Your task to perform on an android device: Open Yahoo.com Image 0: 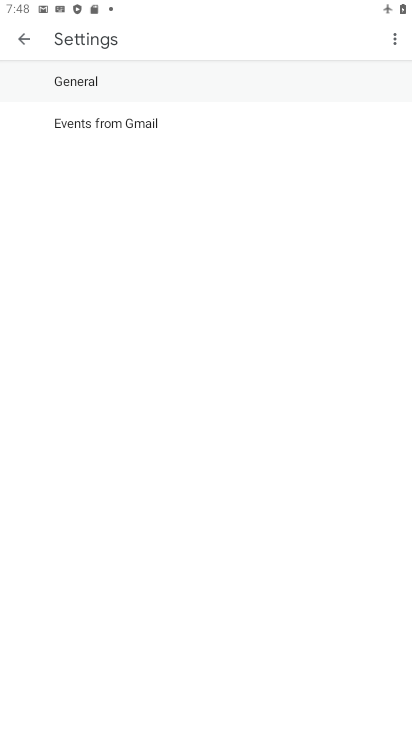
Step 0: press home button
Your task to perform on an android device: Open Yahoo.com Image 1: 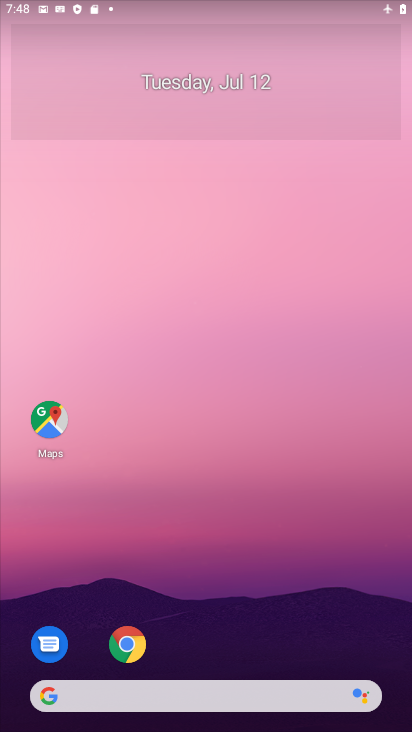
Step 1: click (114, 643)
Your task to perform on an android device: Open Yahoo.com Image 2: 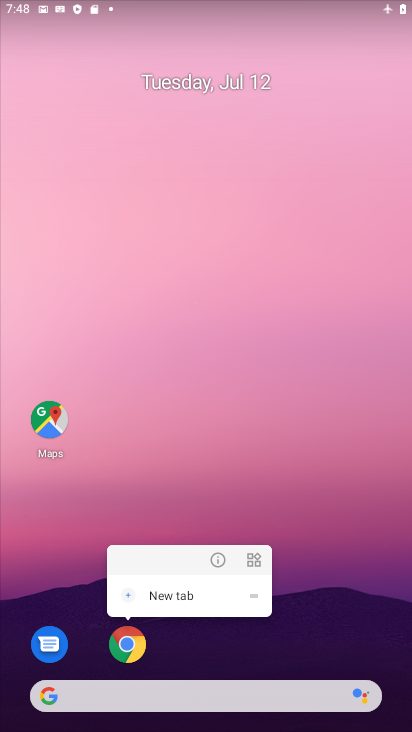
Step 2: click (118, 651)
Your task to perform on an android device: Open Yahoo.com Image 3: 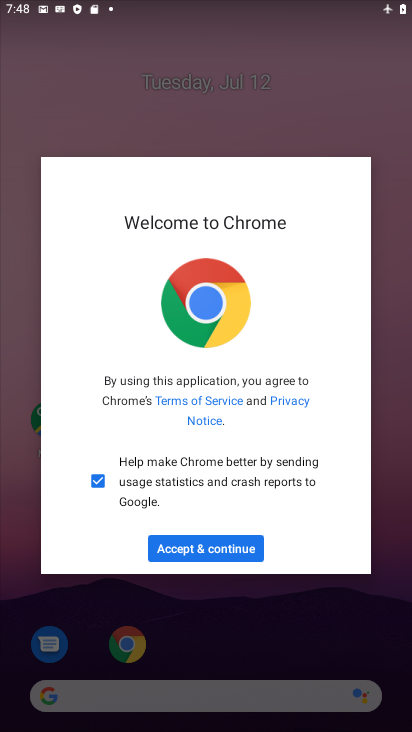
Step 3: click (236, 546)
Your task to perform on an android device: Open Yahoo.com Image 4: 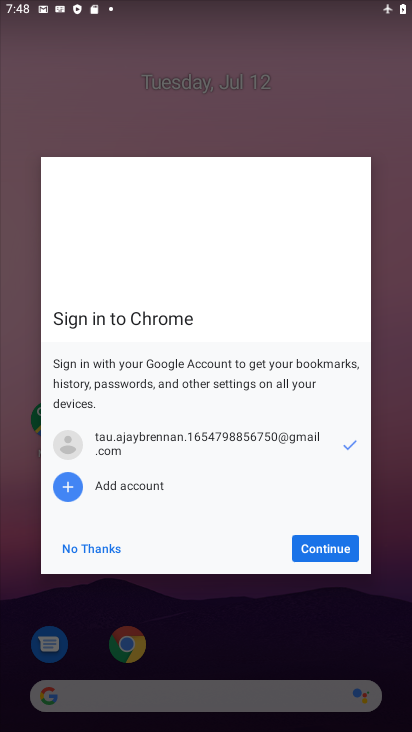
Step 4: click (314, 559)
Your task to perform on an android device: Open Yahoo.com Image 5: 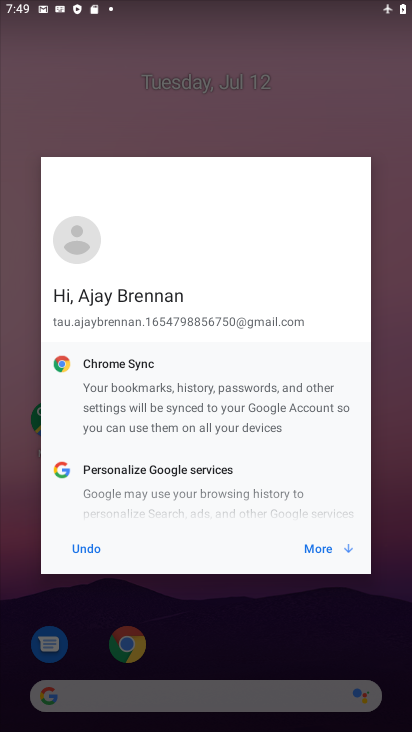
Step 5: click (315, 558)
Your task to perform on an android device: Open Yahoo.com Image 6: 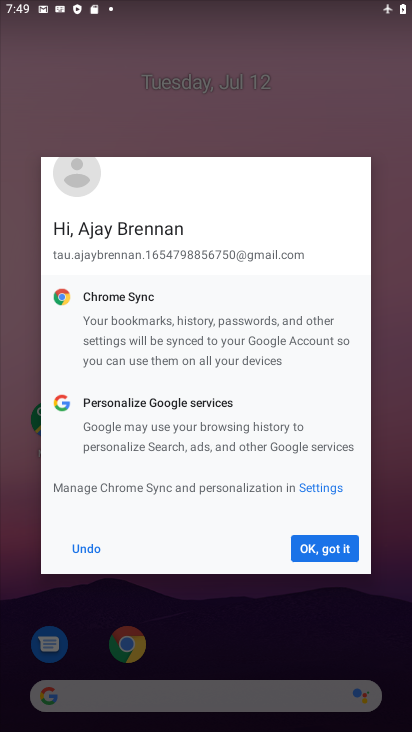
Step 6: click (315, 558)
Your task to perform on an android device: Open Yahoo.com Image 7: 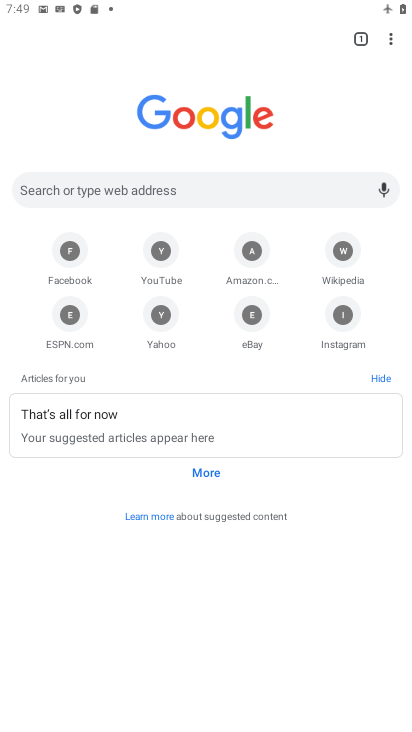
Step 7: click (162, 327)
Your task to perform on an android device: Open Yahoo.com Image 8: 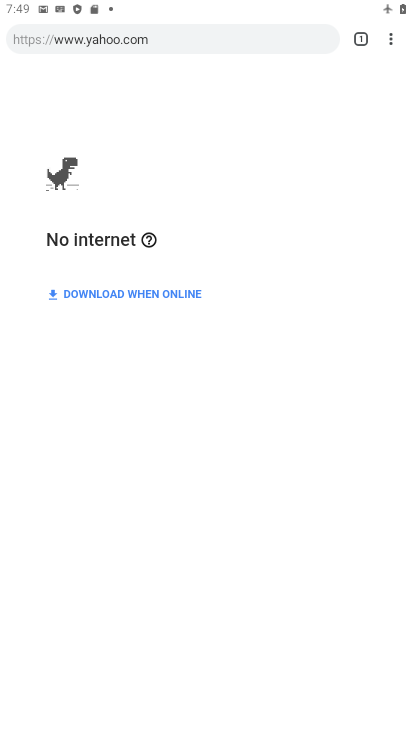
Step 8: task complete